Your task to perform on an android device: Open Chrome and go to settings Image 0: 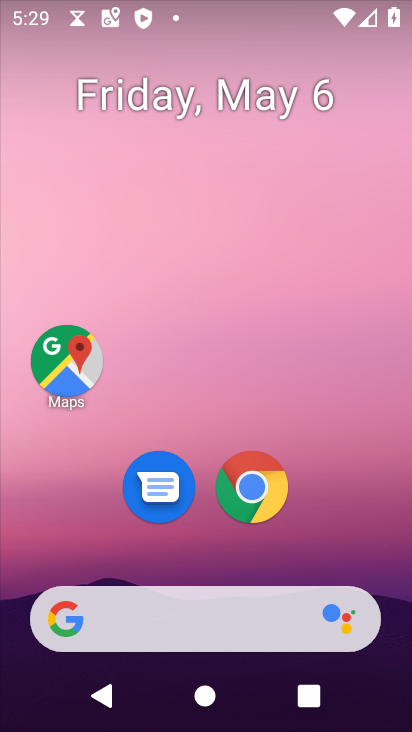
Step 0: click (251, 489)
Your task to perform on an android device: Open Chrome and go to settings Image 1: 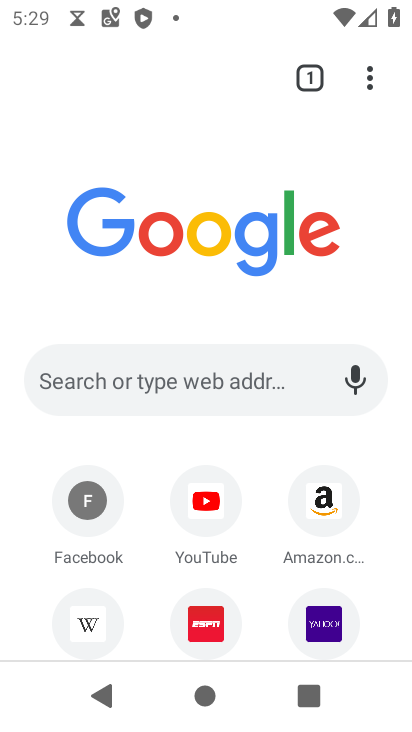
Step 1: click (371, 77)
Your task to perform on an android device: Open Chrome and go to settings Image 2: 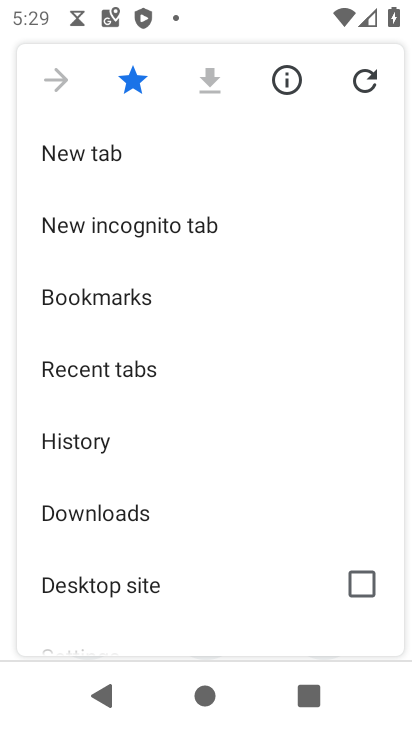
Step 2: drag from (126, 471) to (154, 328)
Your task to perform on an android device: Open Chrome and go to settings Image 3: 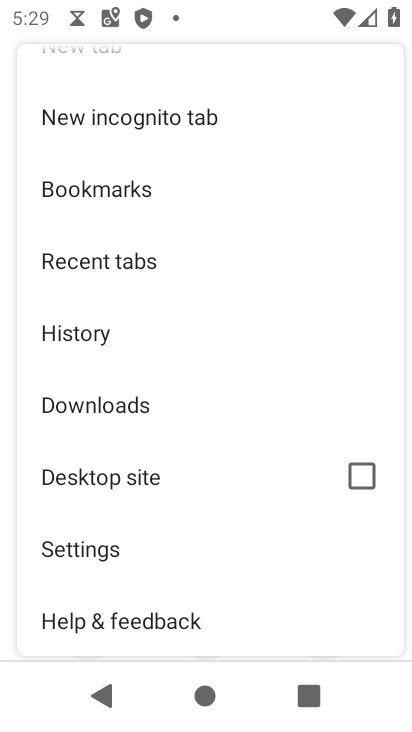
Step 3: click (100, 546)
Your task to perform on an android device: Open Chrome and go to settings Image 4: 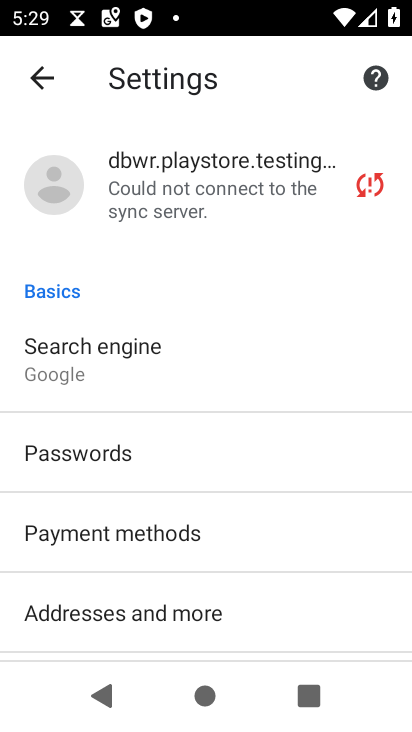
Step 4: task complete